Your task to perform on an android device: snooze an email in the gmail app Image 0: 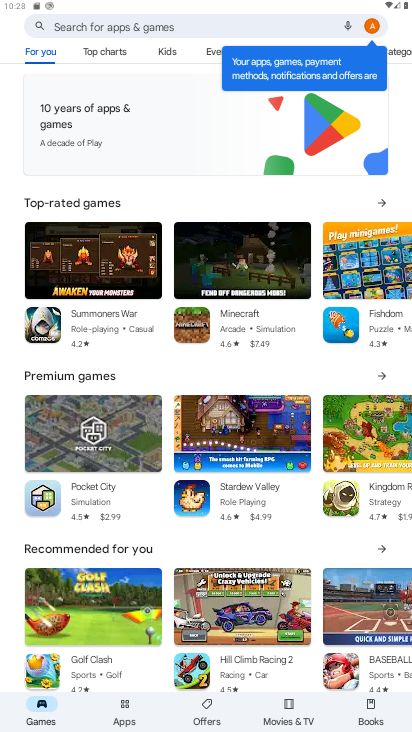
Step 0: press home button
Your task to perform on an android device: snooze an email in the gmail app Image 1: 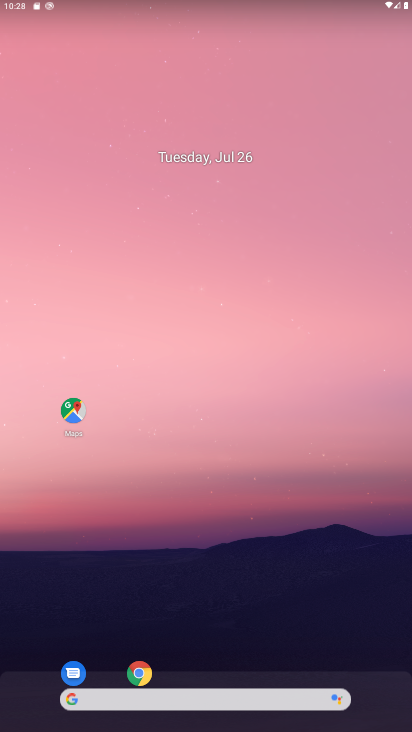
Step 1: drag from (234, 657) to (236, 119)
Your task to perform on an android device: snooze an email in the gmail app Image 2: 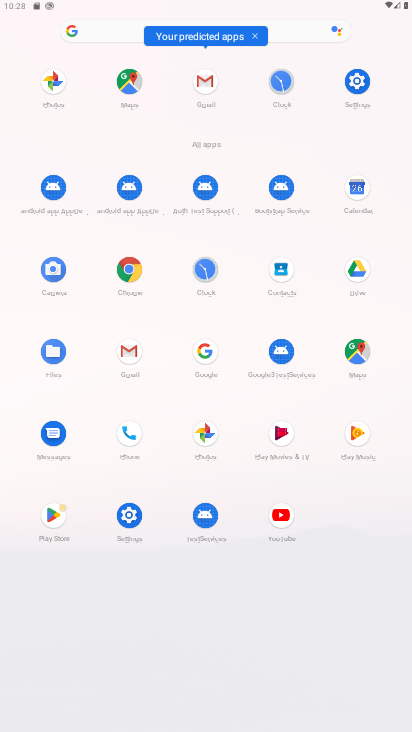
Step 2: click (204, 85)
Your task to perform on an android device: snooze an email in the gmail app Image 3: 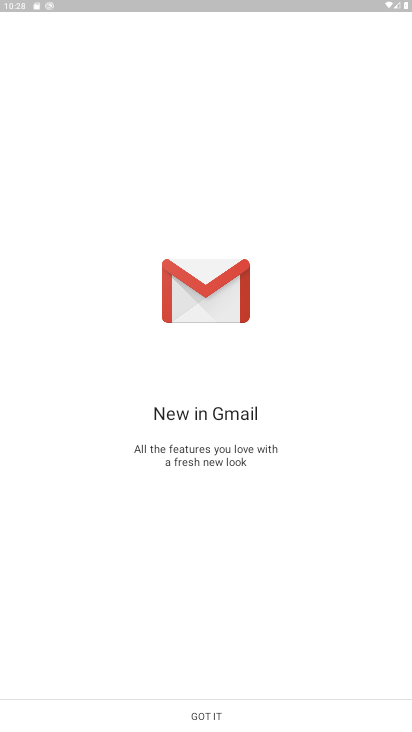
Step 3: click (216, 716)
Your task to perform on an android device: snooze an email in the gmail app Image 4: 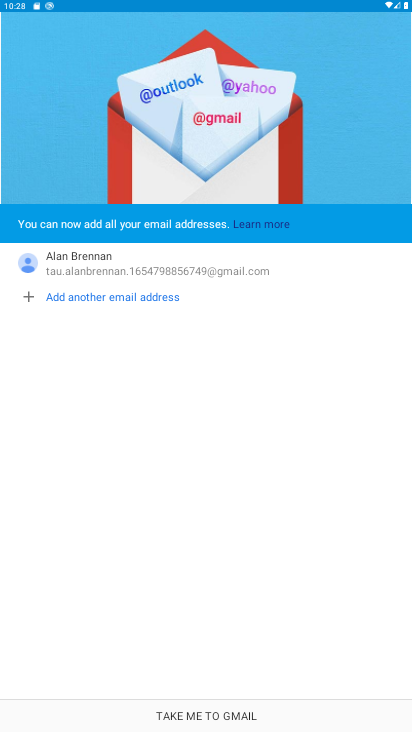
Step 4: click (216, 716)
Your task to perform on an android device: snooze an email in the gmail app Image 5: 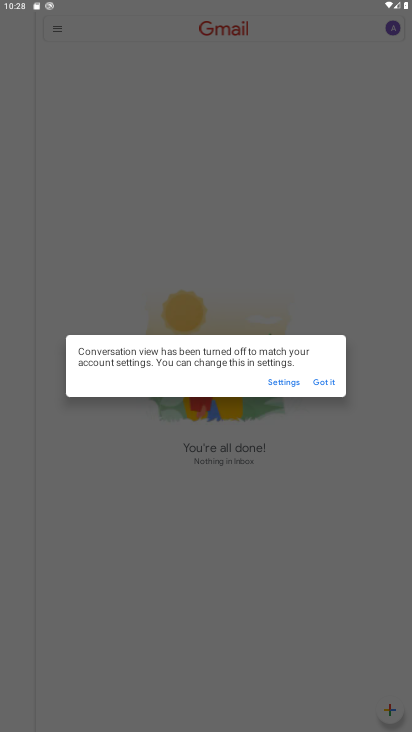
Step 5: click (324, 385)
Your task to perform on an android device: snooze an email in the gmail app Image 6: 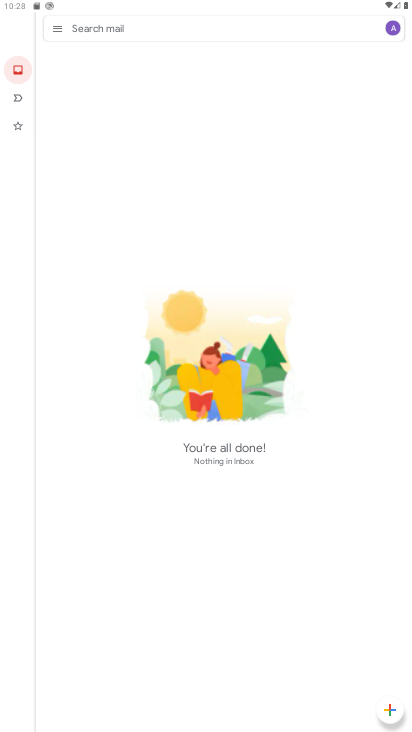
Step 6: click (56, 29)
Your task to perform on an android device: snooze an email in the gmail app Image 7: 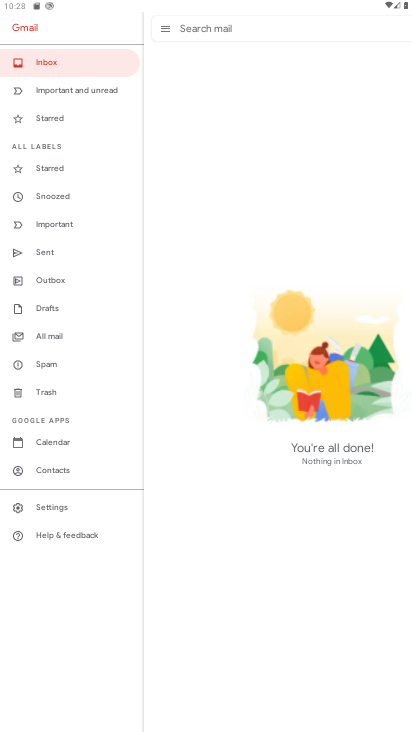
Step 7: click (43, 333)
Your task to perform on an android device: snooze an email in the gmail app Image 8: 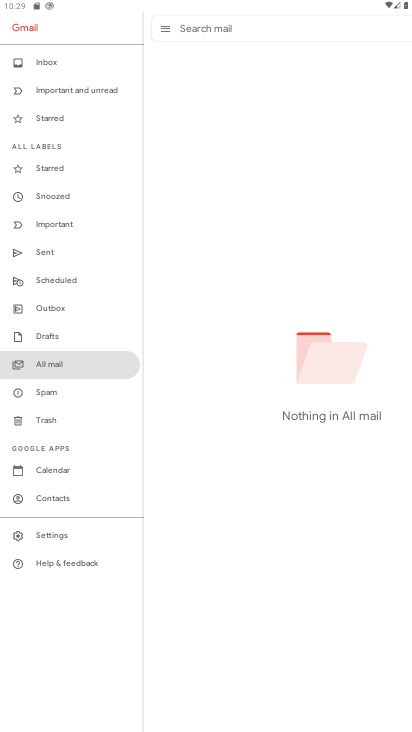
Step 8: task complete